Your task to perform on an android device: Open the calendar app, open the side menu, and click the "Day" option Image 0: 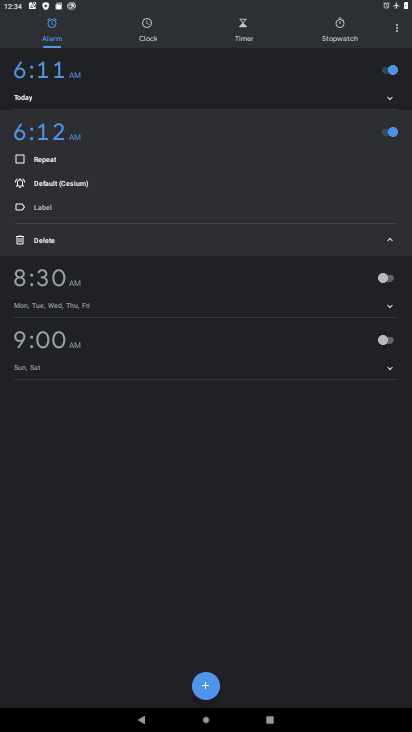
Step 0: press home button
Your task to perform on an android device: Open the calendar app, open the side menu, and click the "Day" option Image 1: 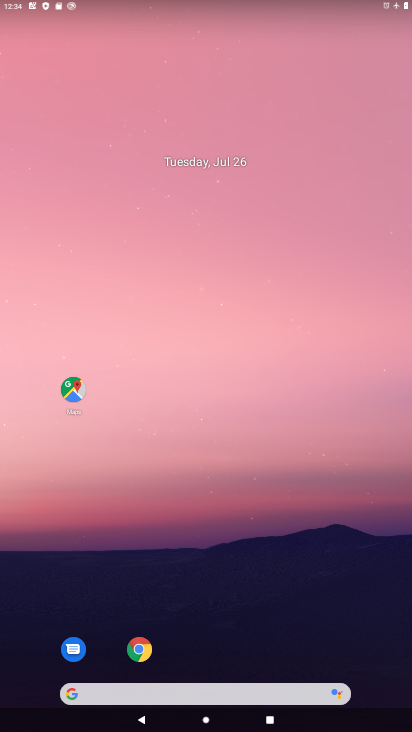
Step 1: drag from (222, 725) to (221, 141)
Your task to perform on an android device: Open the calendar app, open the side menu, and click the "Day" option Image 2: 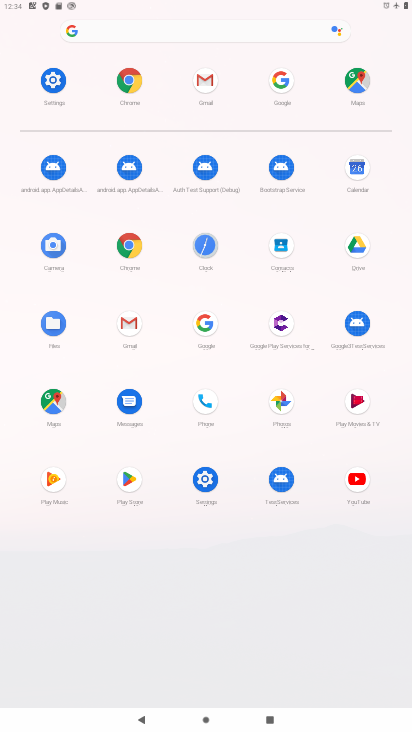
Step 2: click (360, 166)
Your task to perform on an android device: Open the calendar app, open the side menu, and click the "Day" option Image 3: 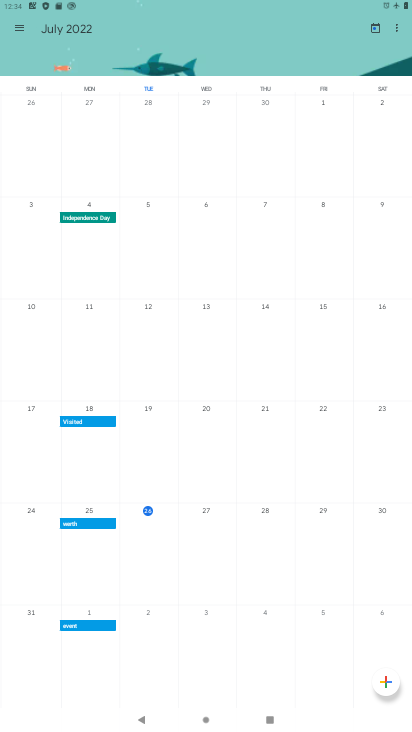
Step 3: click (22, 24)
Your task to perform on an android device: Open the calendar app, open the side menu, and click the "Day" option Image 4: 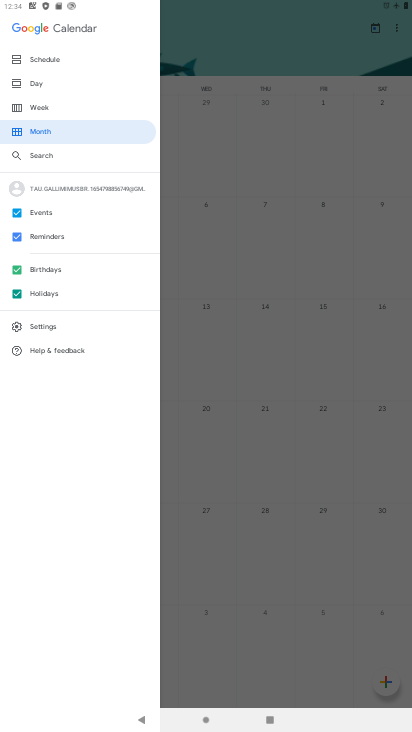
Step 4: click (35, 81)
Your task to perform on an android device: Open the calendar app, open the side menu, and click the "Day" option Image 5: 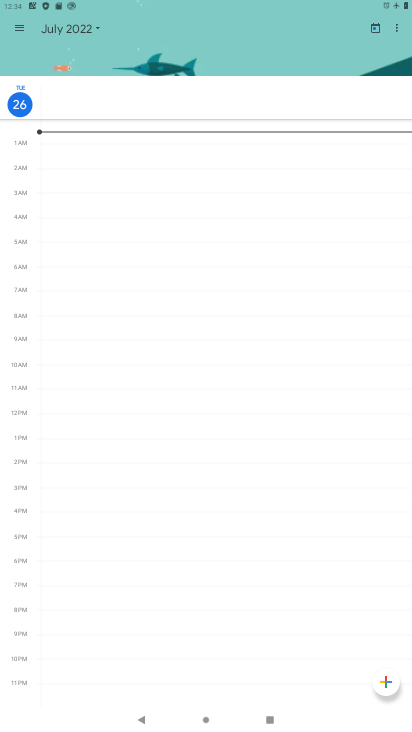
Step 5: task complete